Your task to perform on an android device: See recent photos Image 0: 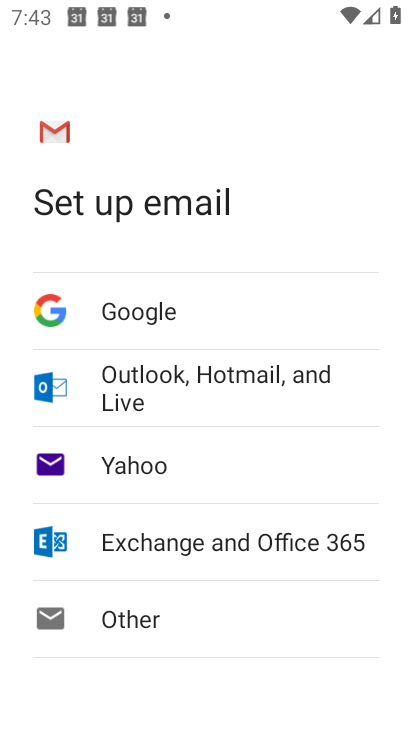
Step 0: press home button
Your task to perform on an android device: See recent photos Image 1: 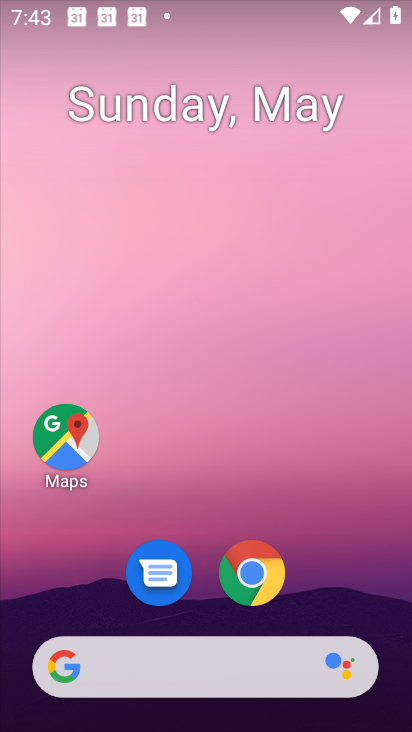
Step 1: drag from (249, 500) to (195, 13)
Your task to perform on an android device: See recent photos Image 2: 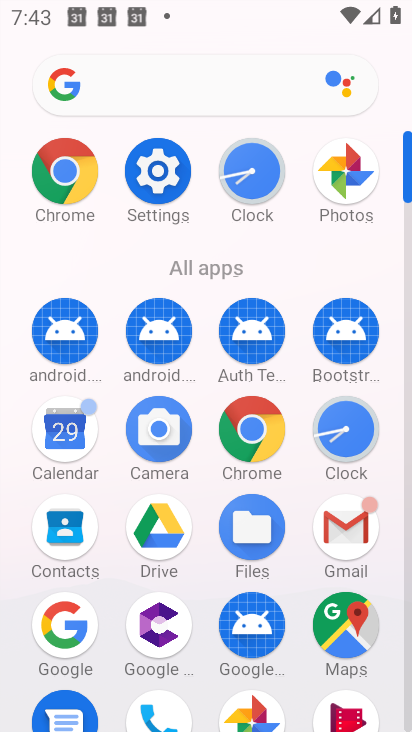
Step 2: click (340, 167)
Your task to perform on an android device: See recent photos Image 3: 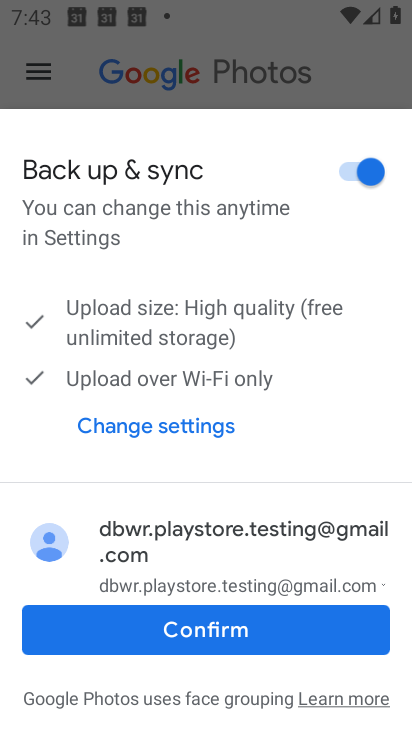
Step 3: click (299, 631)
Your task to perform on an android device: See recent photos Image 4: 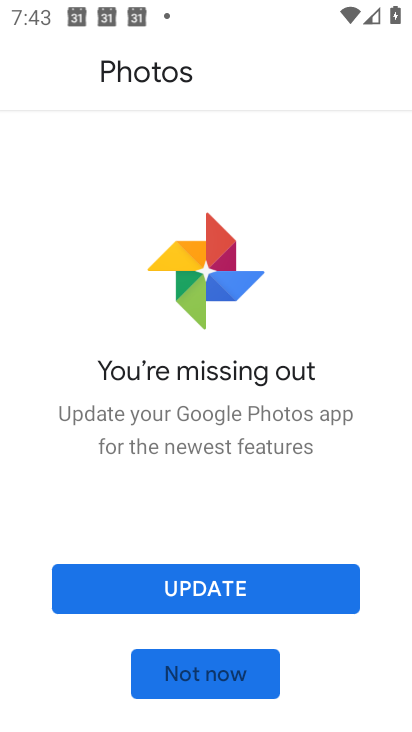
Step 4: click (241, 670)
Your task to perform on an android device: See recent photos Image 5: 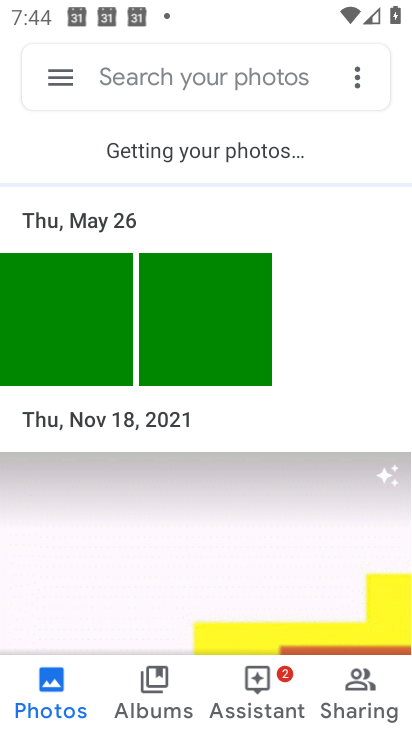
Step 5: task complete